Your task to perform on an android device: Open sound settings Image 0: 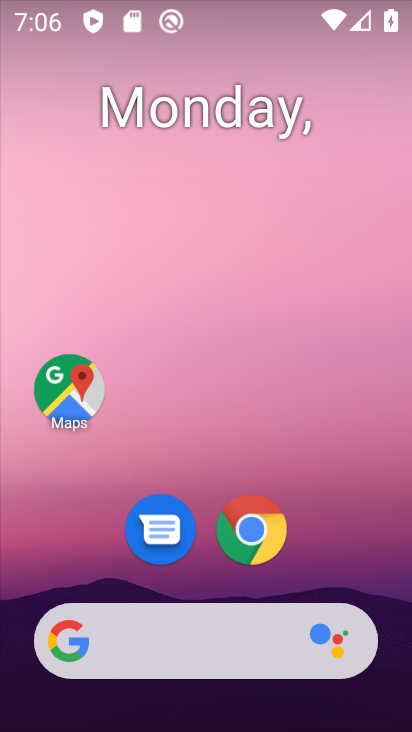
Step 0: drag from (334, 493) to (251, 39)
Your task to perform on an android device: Open sound settings Image 1: 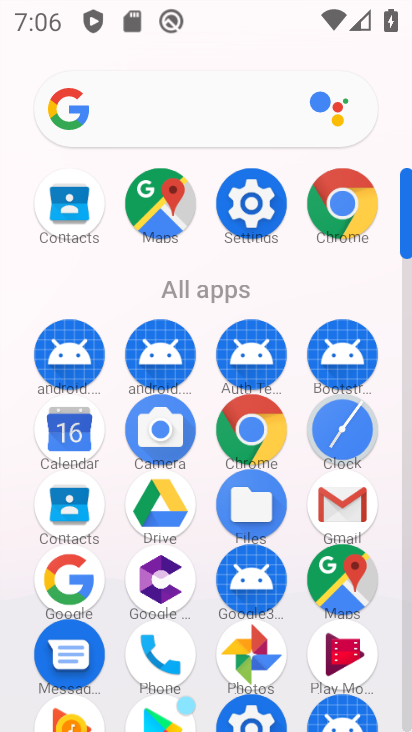
Step 1: click (265, 207)
Your task to perform on an android device: Open sound settings Image 2: 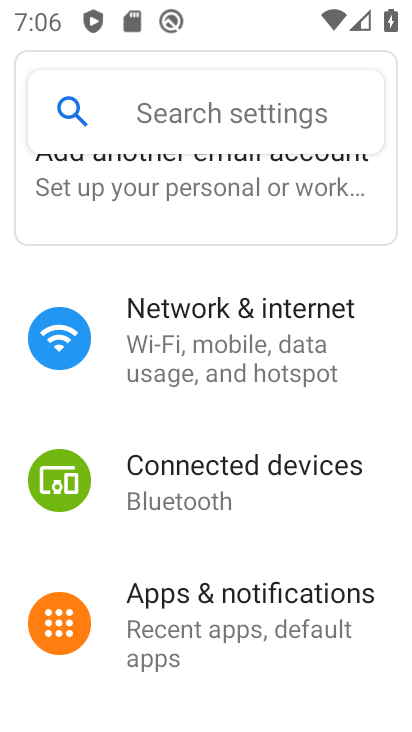
Step 2: drag from (259, 521) to (215, 296)
Your task to perform on an android device: Open sound settings Image 3: 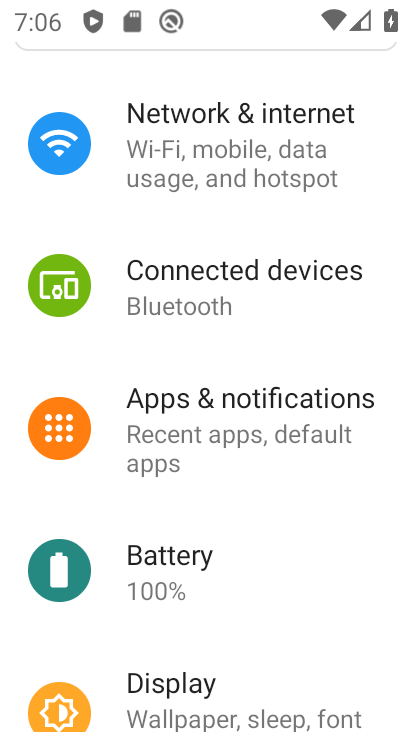
Step 3: drag from (291, 559) to (216, 207)
Your task to perform on an android device: Open sound settings Image 4: 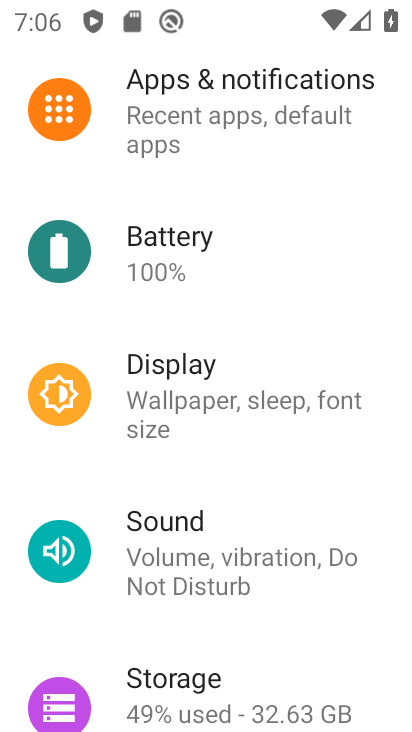
Step 4: click (181, 518)
Your task to perform on an android device: Open sound settings Image 5: 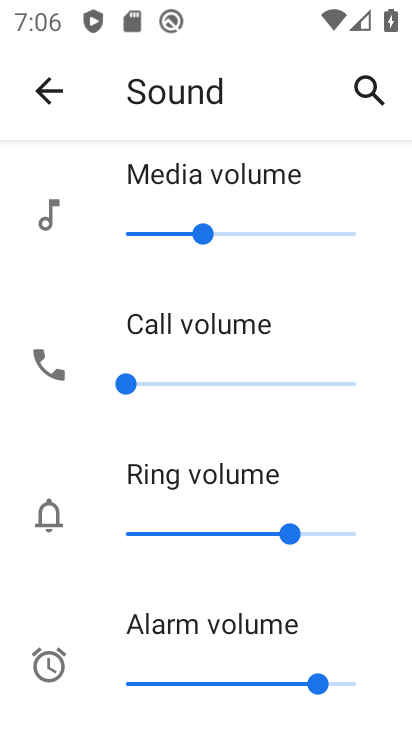
Step 5: task complete